Your task to perform on an android device: delete location history Image 0: 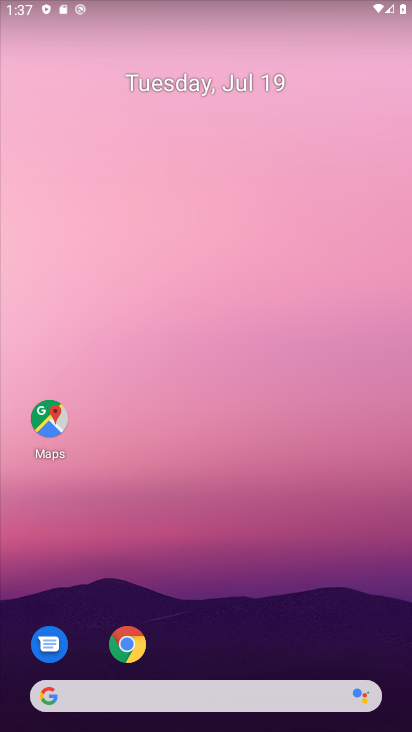
Step 0: click (186, 31)
Your task to perform on an android device: delete location history Image 1: 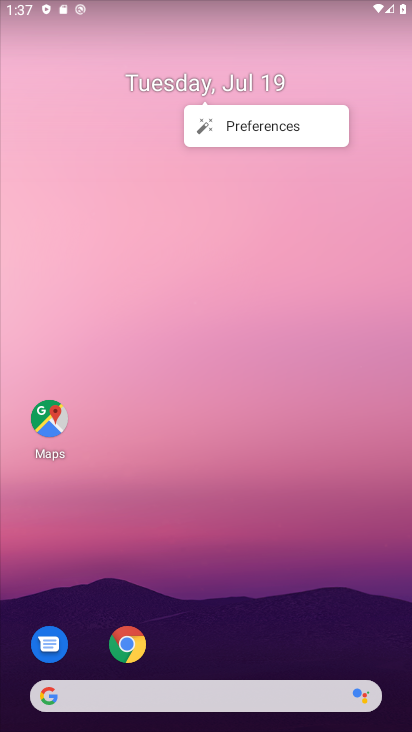
Step 1: drag from (219, 626) to (150, 267)
Your task to perform on an android device: delete location history Image 2: 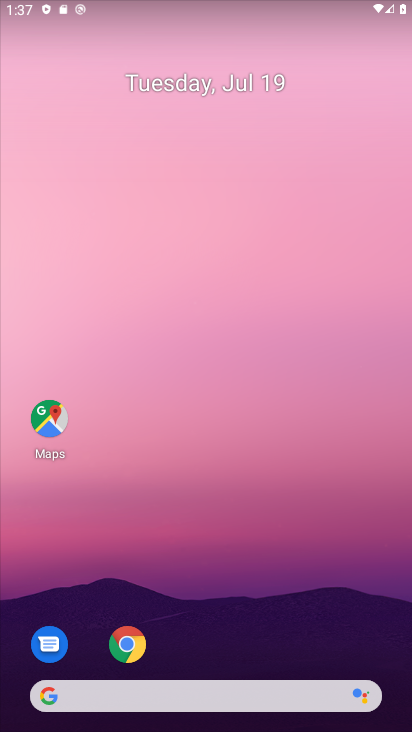
Step 2: drag from (269, 582) to (191, 167)
Your task to perform on an android device: delete location history Image 3: 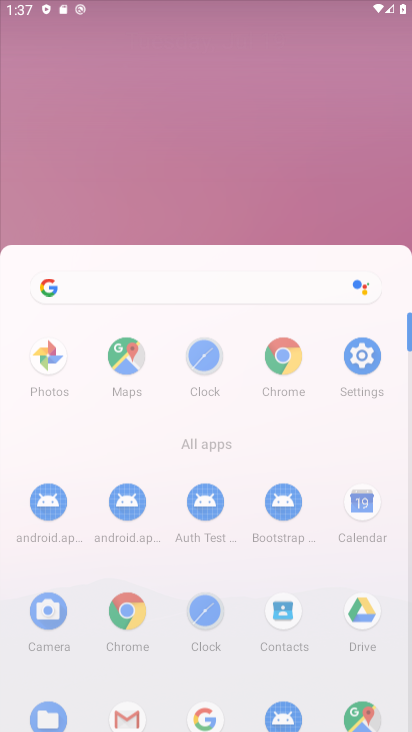
Step 3: drag from (216, 463) to (188, 56)
Your task to perform on an android device: delete location history Image 4: 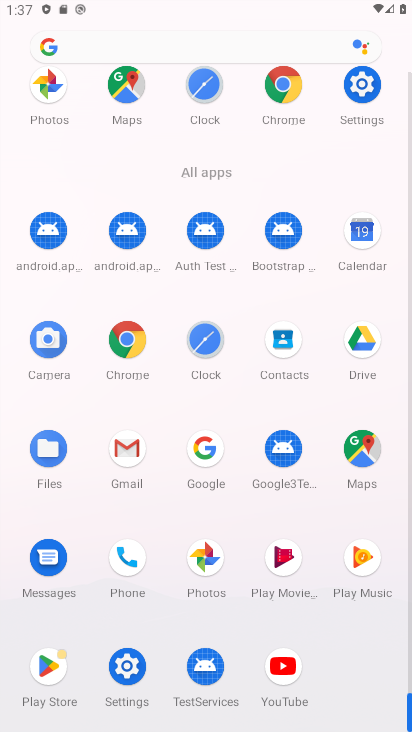
Step 4: click (350, 89)
Your task to perform on an android device: delete location history Image 5: 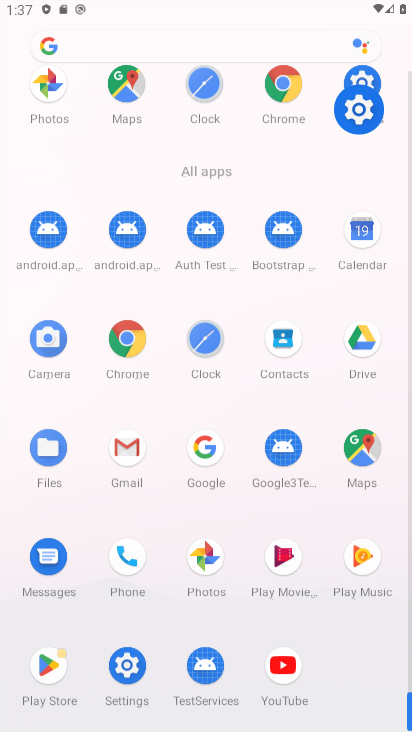
Step 5: click (349, 91)
Your task to perform on an android device: delete location history Image 6: 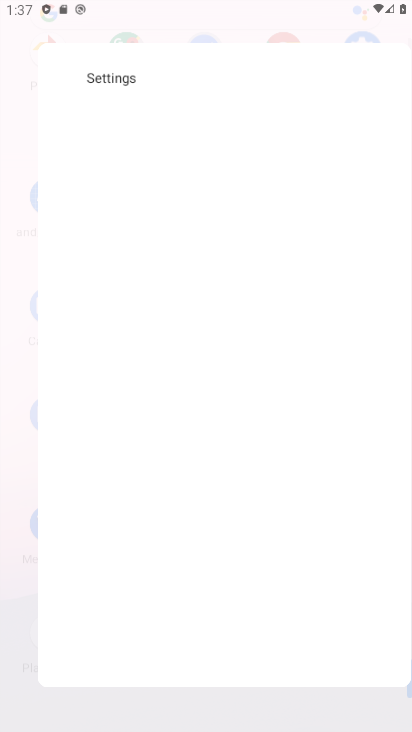
Step 6: click (349, 91)
Your task to perform on an android device: delete location history Image 7: 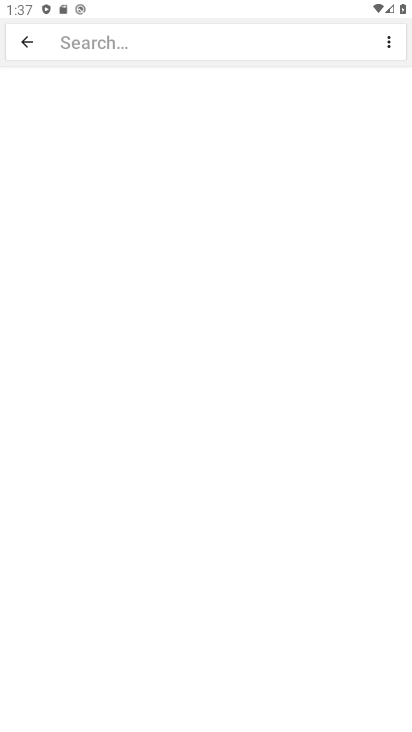
Step 7: press back button
Your task to perform on an android device: delete location history Image 8: 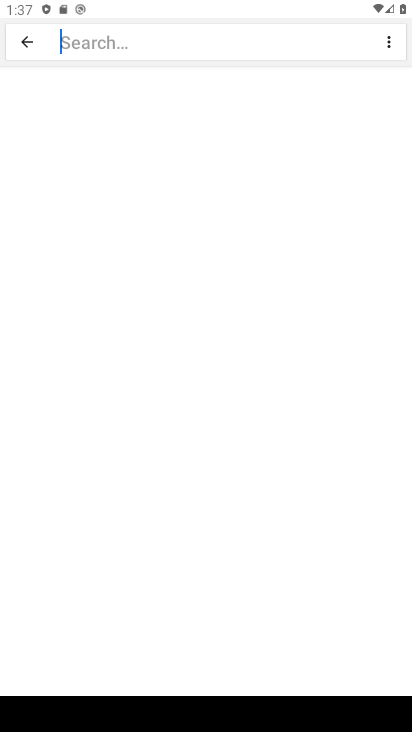
Step 8: press back button
Your task to perform on an android device: delete location history Image 9: 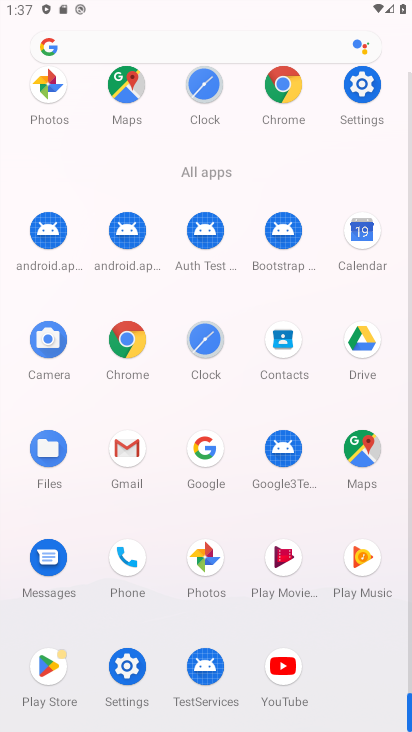
Step 9: click (364, 91)
Your task to perform on an android device: delete location history Image 10: 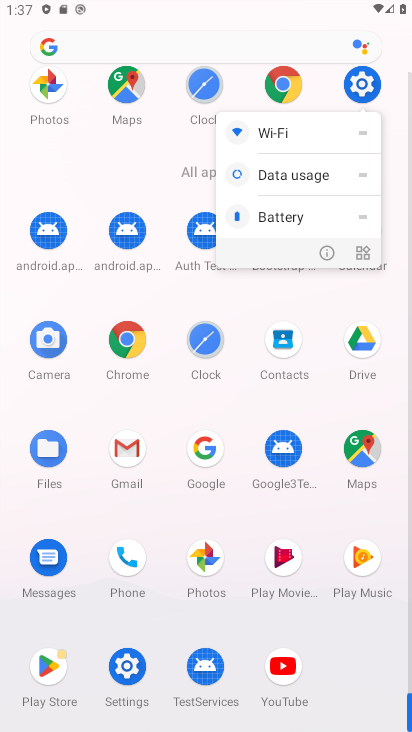
Step 10: click (369, 80)
Your task to perform on an android device: delete location history Image 11: 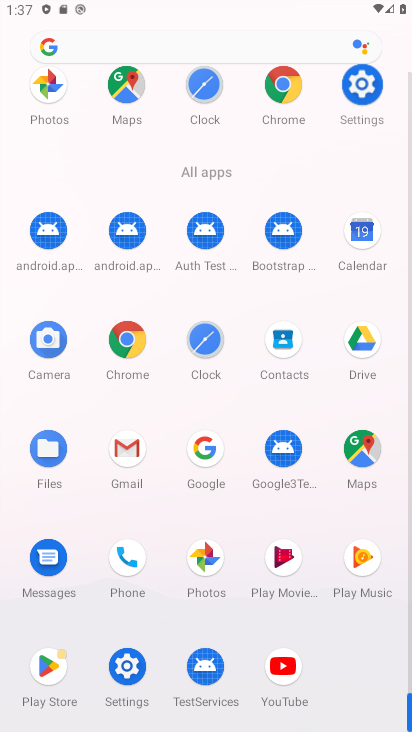
Step 11: click (365, 79)
Your task to perform on an android device: delete location history Image 12: 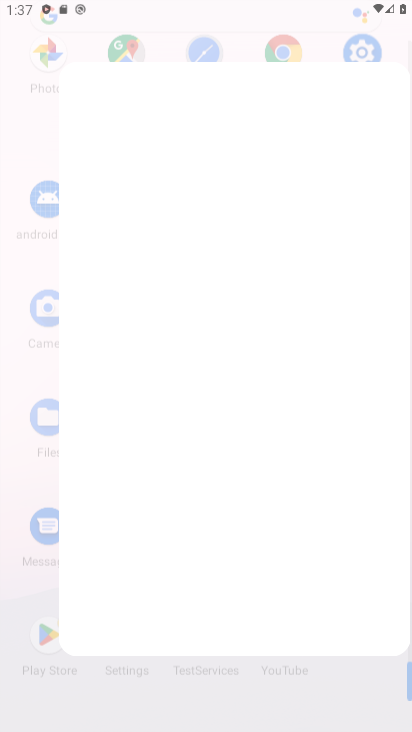
Step 12: click (364, 78)
Your task to perform on an android device: delete location history Image 13: 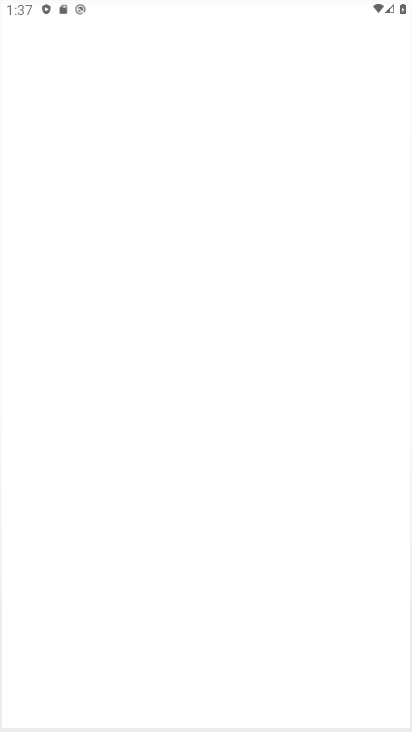
Step 13: click (364, 78)
Your task to perform on an android device: delete location history Image 14: 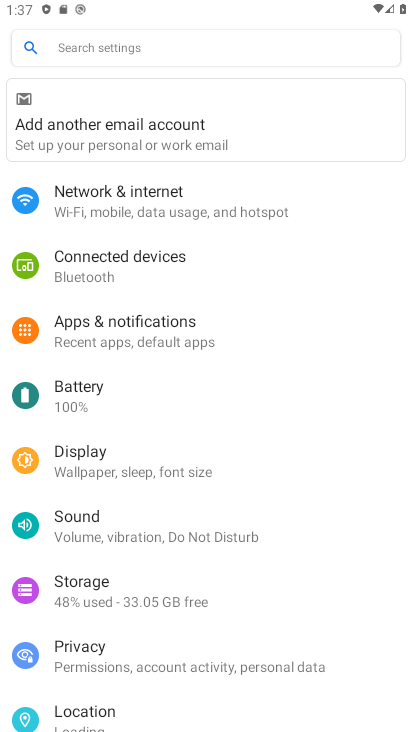
Step 14: drag from (115, 586) to (126, 344)
Your task to perform on an android device: delete location history Image 15: 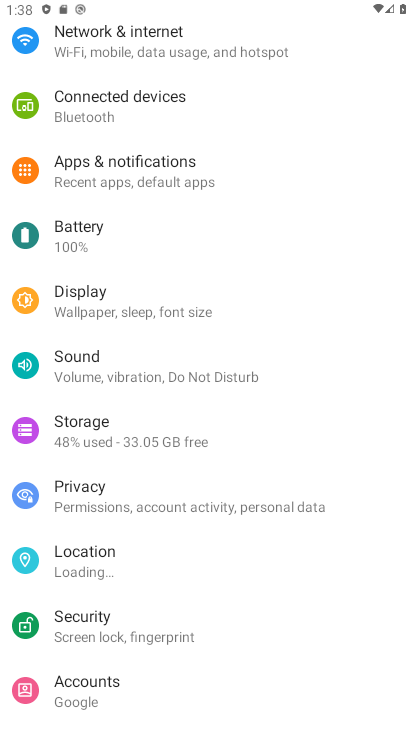
Step 15: drag from (146, 562) to (186, 301)
Your task to perform on an android device: delete location history Image 16: 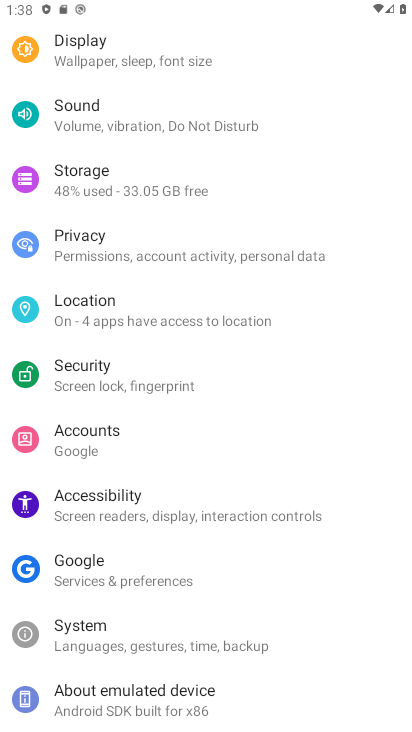
Step 16: click (84, 303)
Your task to perform on an android device: delete location history Image 17: 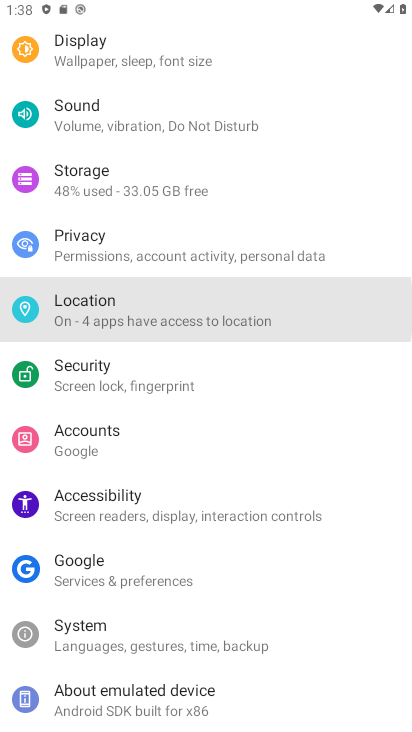
Step 17: click (85, 305)
Your task to perform on an android device: delete location history Image 18: 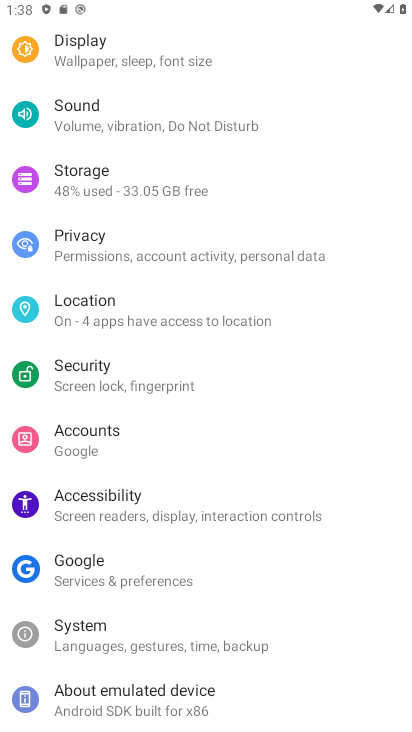
Step 18: click (88, 310)
Your task to perform on an android device: delete location history Image 19: 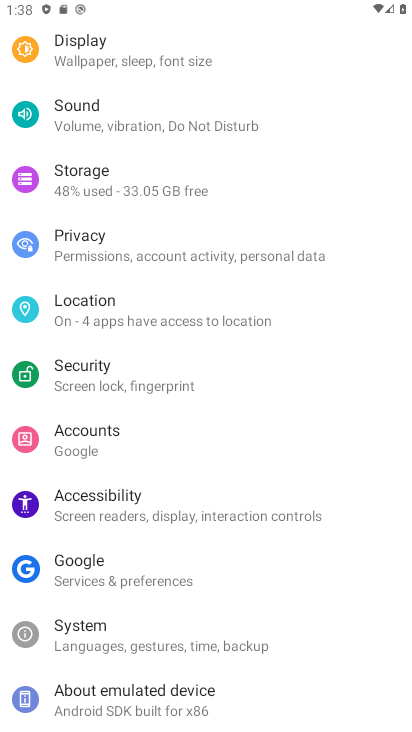
Step 19: click (93, 318)
Your task to perform on an android device: delete location history Image 20: 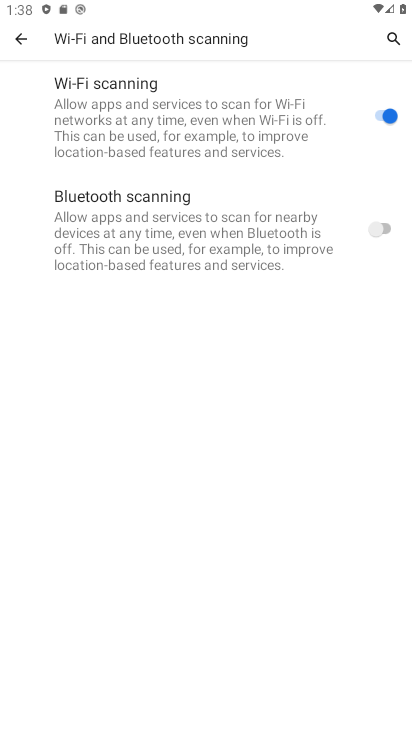
Step 20: click (29, 43)
Your task to perform on an android device: delete location history Image 21: 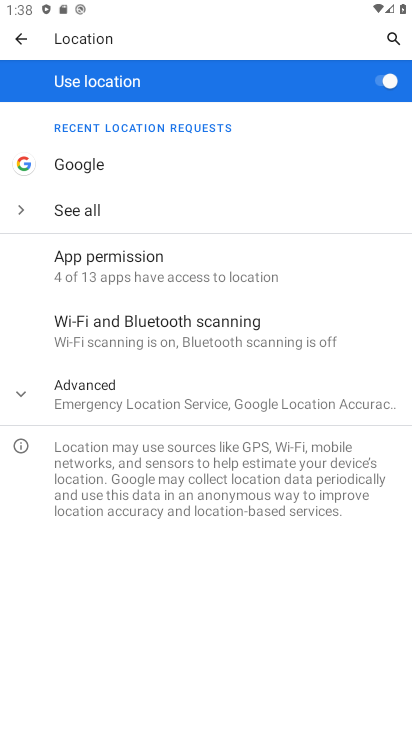
Step 21: click (97, 395)
Your task to perform on an android device: delete location history Image 22: 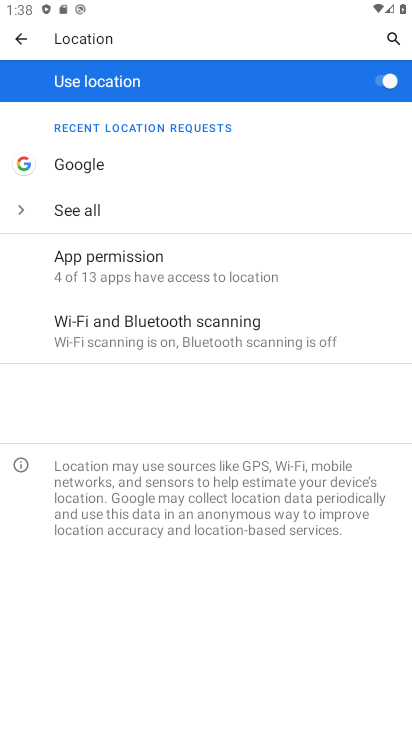
Step 22: click (95, 394)
Your task to perform on an android device: delete location history Image 23: 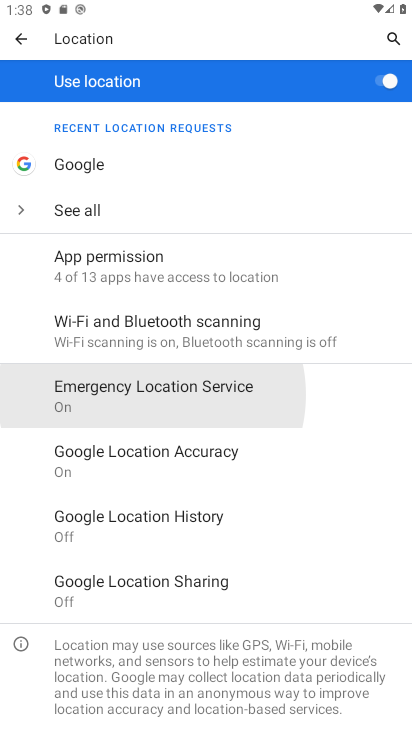
Step 23: click (94, 395)
Your task to perform on an android device: delete location history Image 24: 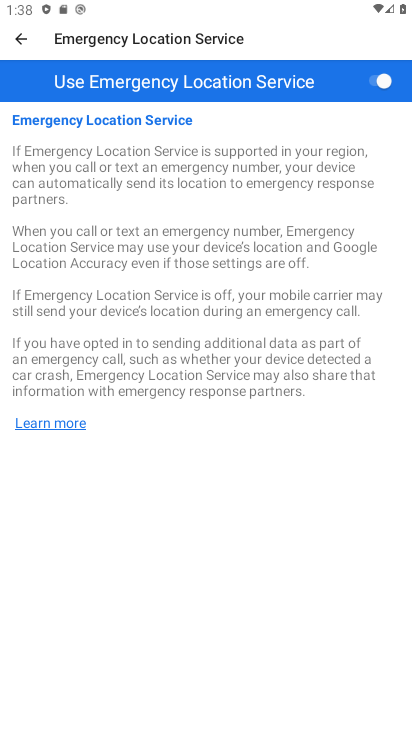
Step 24: click (15, 31)
Your task to perform on an android device: delete location history Image 25: 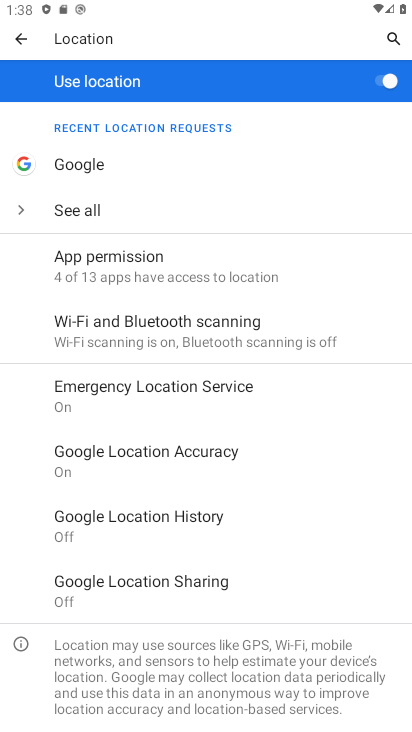
Step 25: click (157, 525)
Your task to perform on an android device: delete location history Image 26: 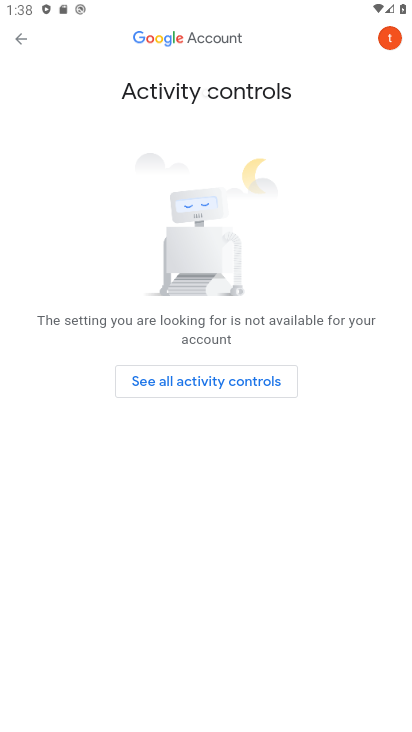
Step 26: click (200, 372)
Your task to perform on an android device: delete location history Image 27: 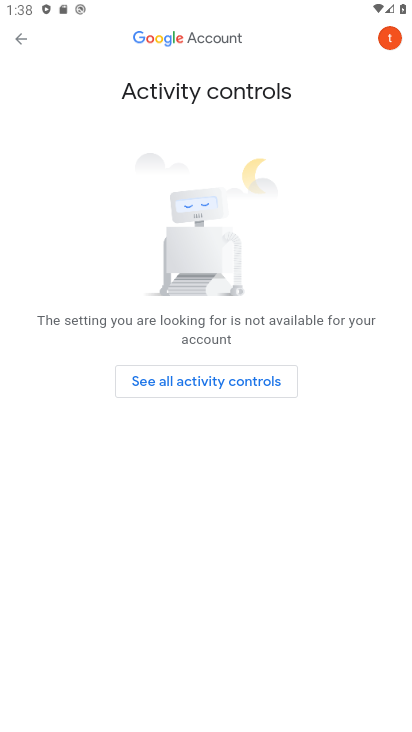
Step 27: click (205, 372)
Your task to perform on an android device: delete location history Image 28: 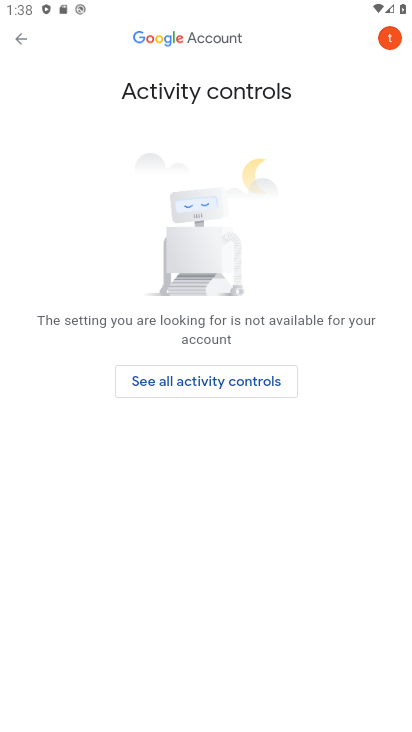
Step 28: click (212, 385)
Your task to perform on an android device: delete location history Image 29: 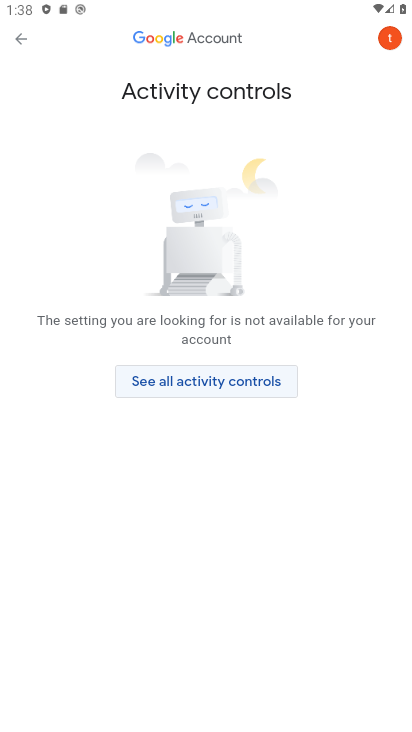
Step 29: click (212, 385)
Your task to perform on an android device: delete location history Image 30: 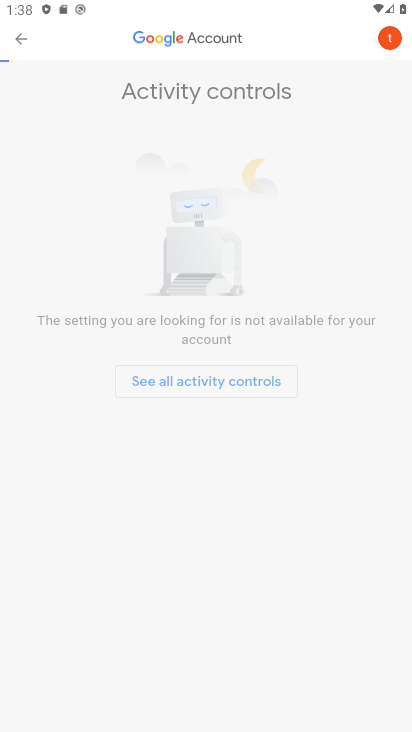
Step 30: click (212, 386)
Your task to perform on an android device: delete location history Image 31: 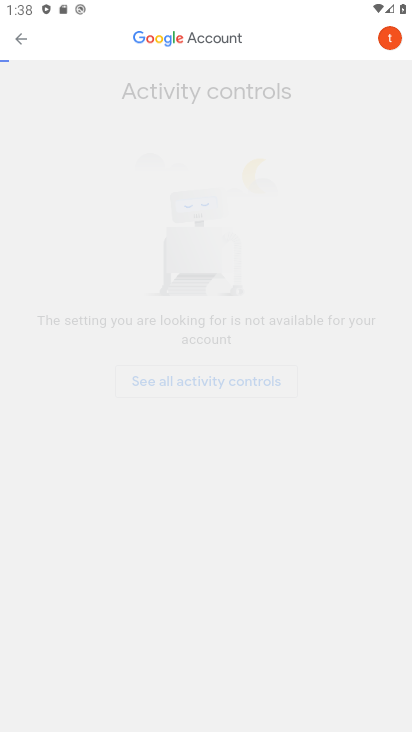
Step 31: click (214, 385)
Your task to perform on an android device: delete location history Image 32: 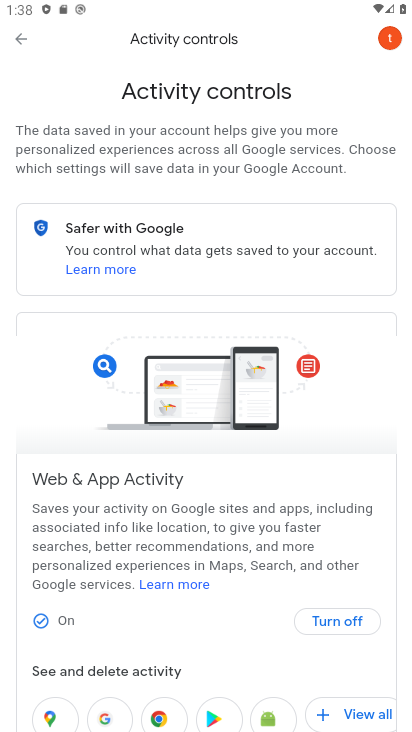
Step 32: click (332, 618)
Your task to perform on an android device: delete location history Image 33: 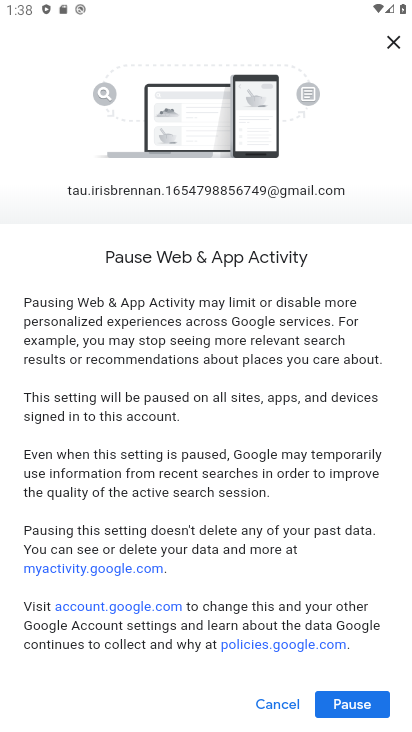
Step 33: click (353, 702)
Your task to perform on an android device: delete location history Image 34: 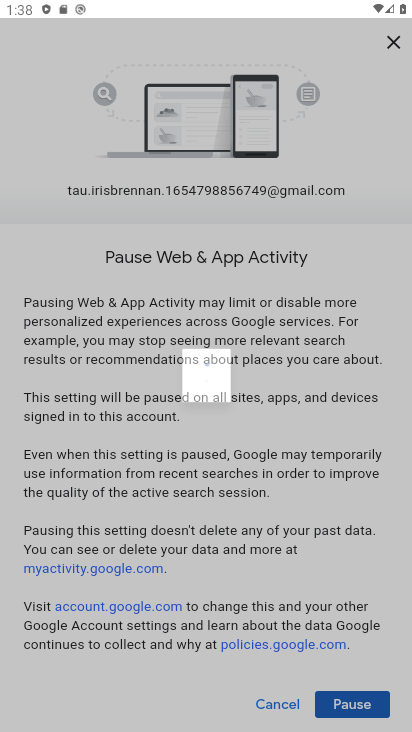
Step 34: task complete